Your task to perform on an android device: turn off improve location accuracy Image 0: 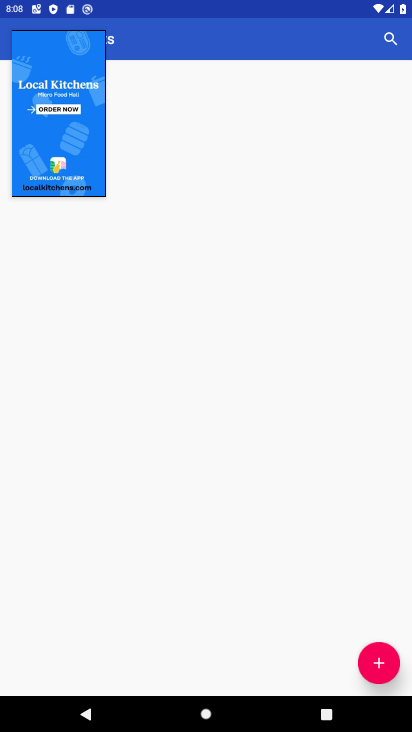
Step 0: click (73, 154)
Your task to perform on an android device: turn off improve location accuracy Image 1: 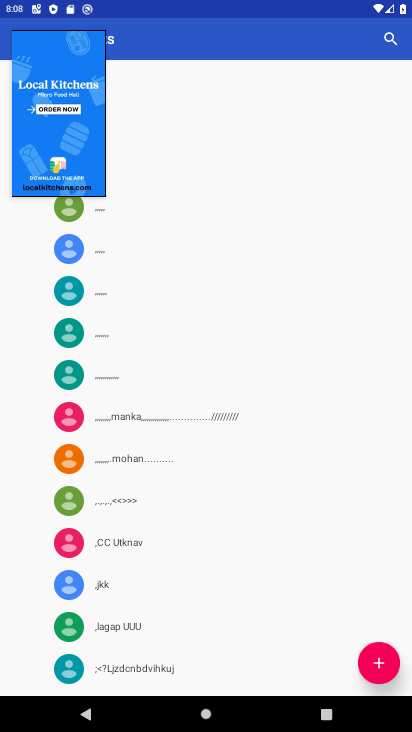
Step 1: click (71, 141)
Your task to perform on an android device: turn off improve location accuracy Image 2: 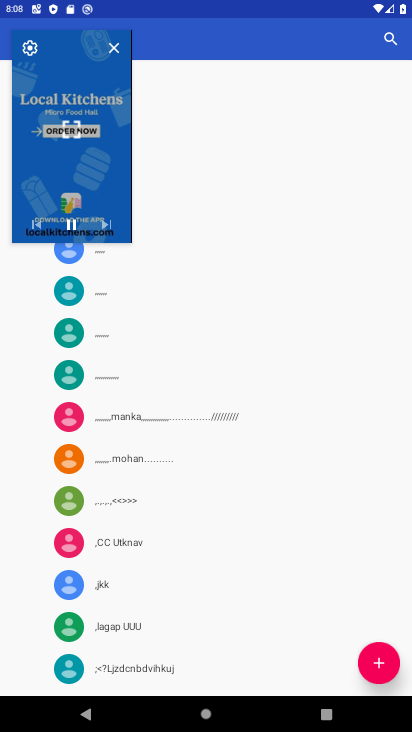
Step 2: click (72, 141)
Your task to perform on an android device: turn off improve location accuracy Image 3: 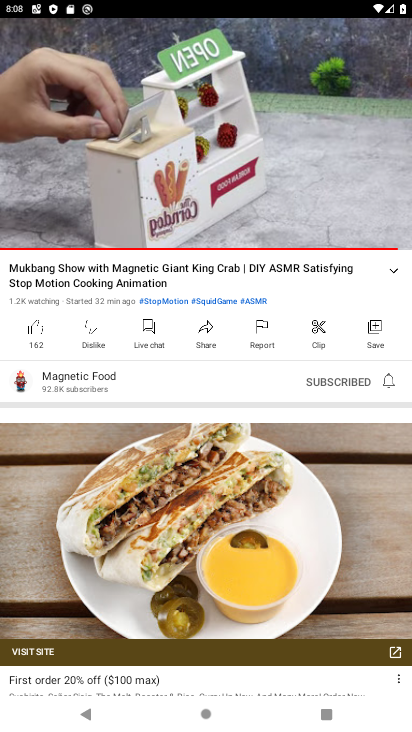
Step 3: press home button
Your task to perform on an android device: turn off improve location accuracy Image 4: 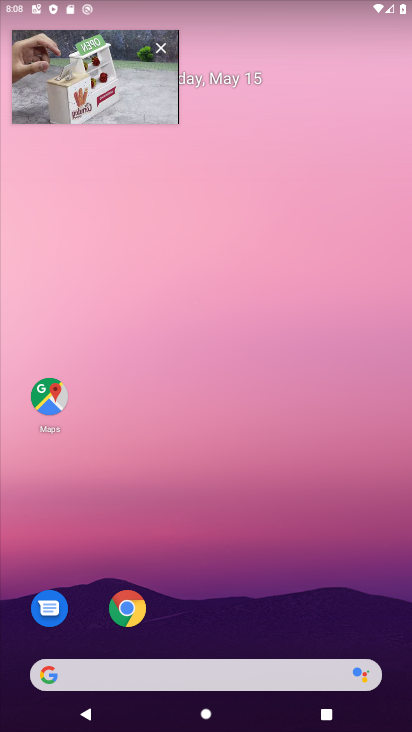
Step 4: click (165, 52)
Your task to perform on an android device: turn off improve location accuracy Image 5: 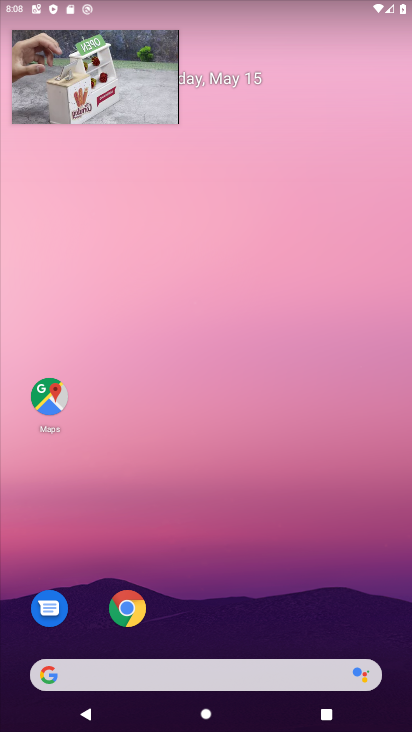
Step 5: click (165, 52)
Your task to perform on an android device: turn off improve location accuracy Image 6: 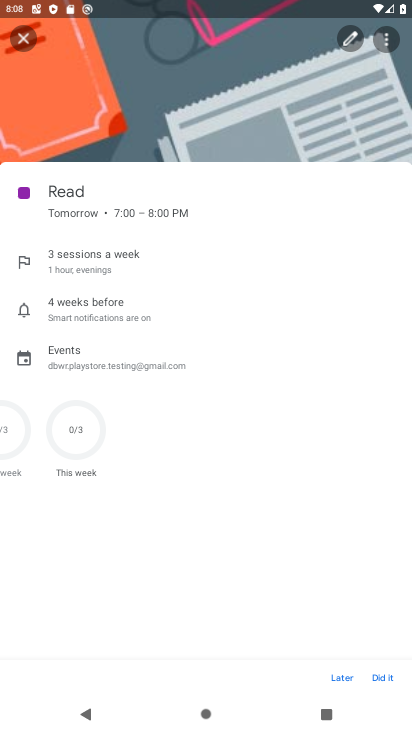
Step 6: click (255, 604)
Your task to perform on an android device: turn off improve location accuracy Image 7: 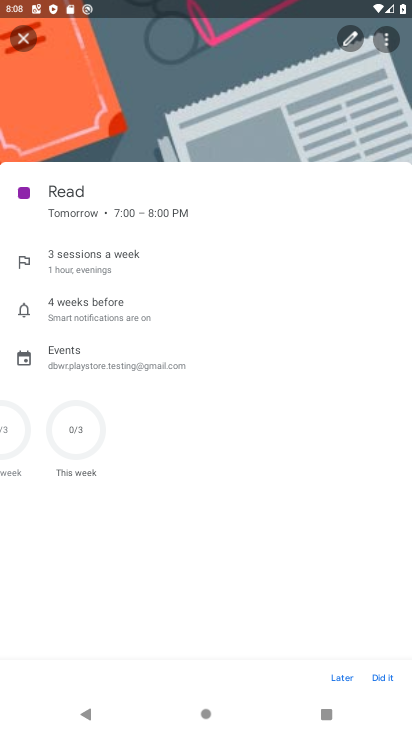
Step 7: press home button
Your task to perform on an android device: turn off improve location accuracy Image 8: 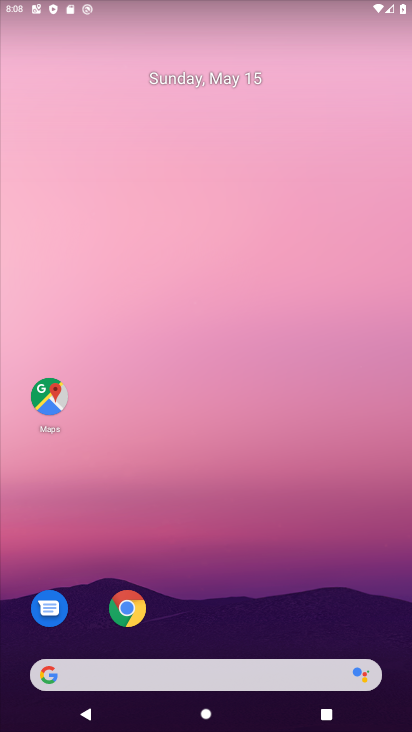
Step 8: drag from (304, 642) to (237, 249)
Your task to perform on an android device: turn off improve location accuracy Image 9: 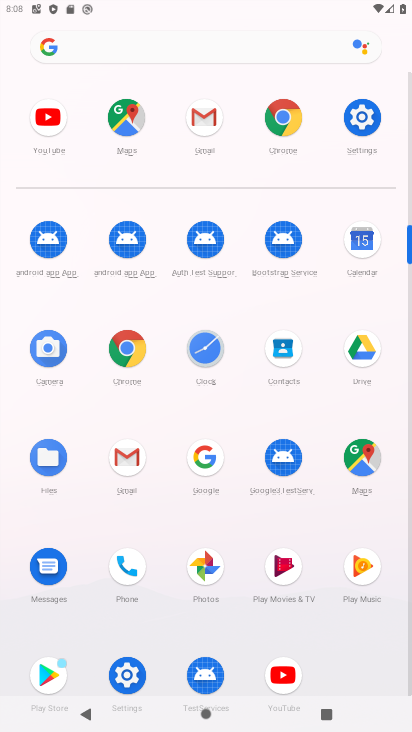
Step 9: click (358, 116)
Your task to perform on an android device: turn off improve location accuracy Image 10: 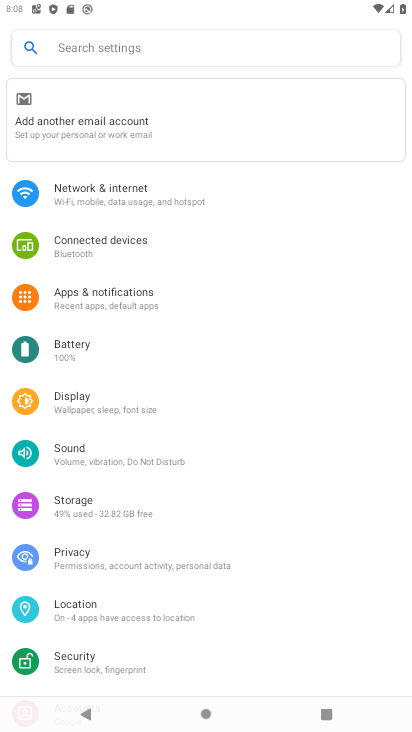
Step 10: drag from (210, 374) to (169, 163)
Your task to perform on an android device: turn off improve location accuracy Image 11: 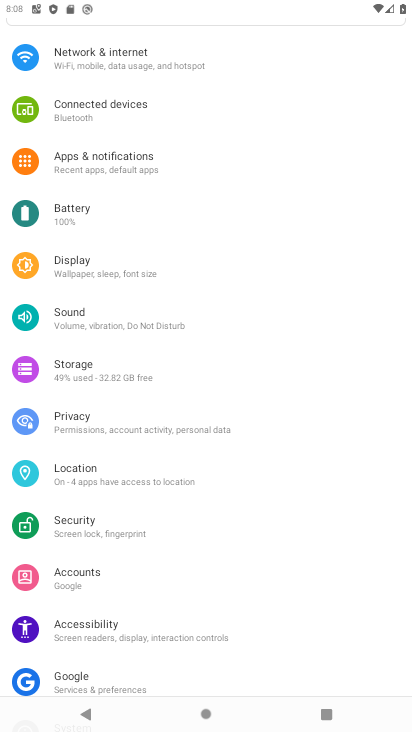
Step 11: drag from (92, 394) to (104, 114)
Your task to perform on an android device: turn off improve location accuracy Image 12: 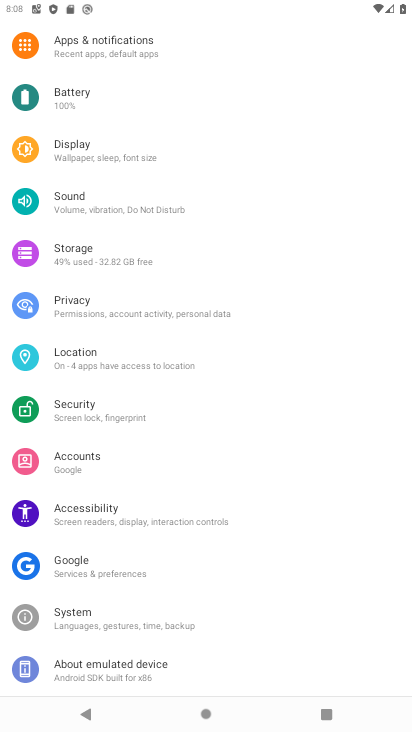
Step 12: click (84, 363)
Your task to perform on an android device: turn off improve location accuracy Image 13: 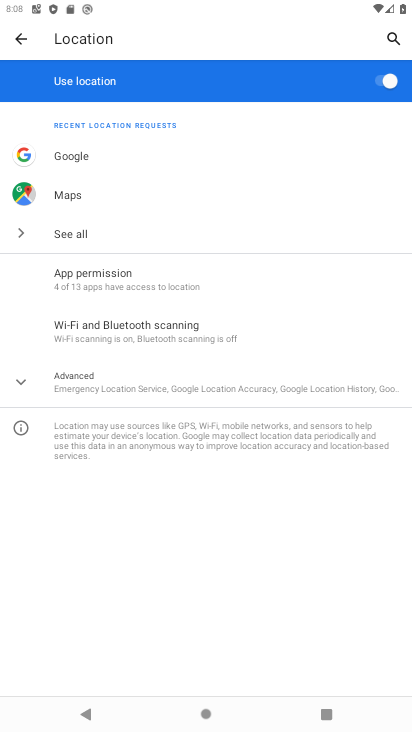
Step 13: click (92, 384)
Your task to perform on an android device: turn off improve location accuracy Image 14: 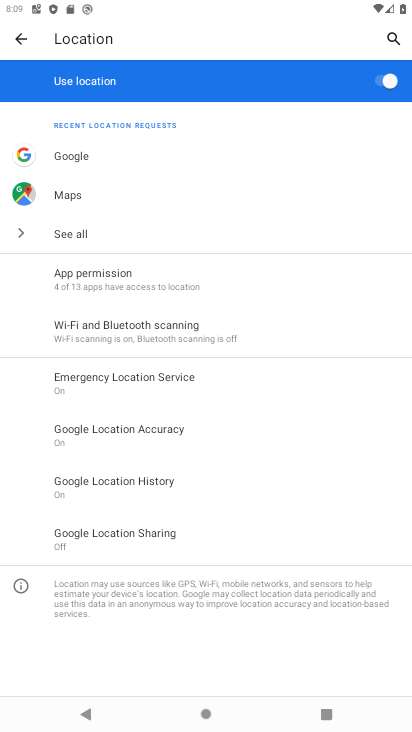
Step 14: click (92, 427)
Your task to perform on an android device: turn off improve location accuracy Image 15: 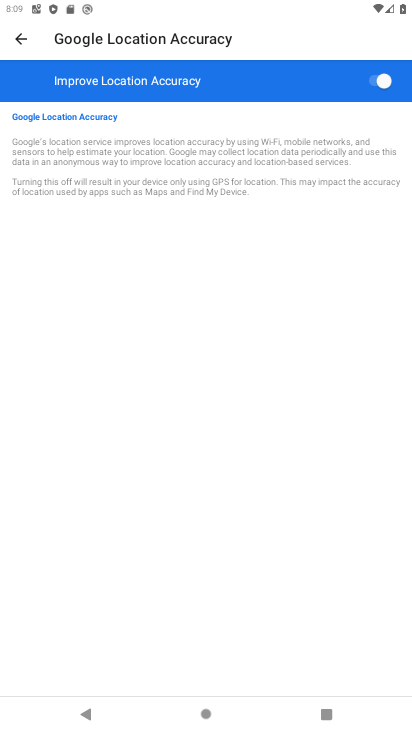
Step 15: click (385, 62)
Your task to perform on an android device: turn off improve location accuracy Image 16: 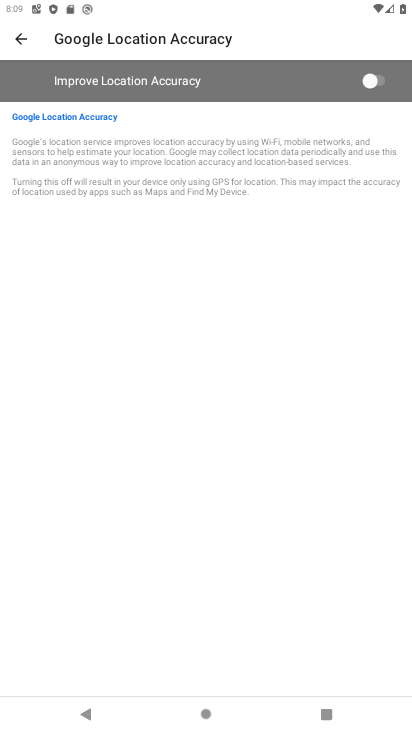
Step 16: task complete